Your task to perform on an android device: open app "Contacts" (install if not already installed) Image 0: 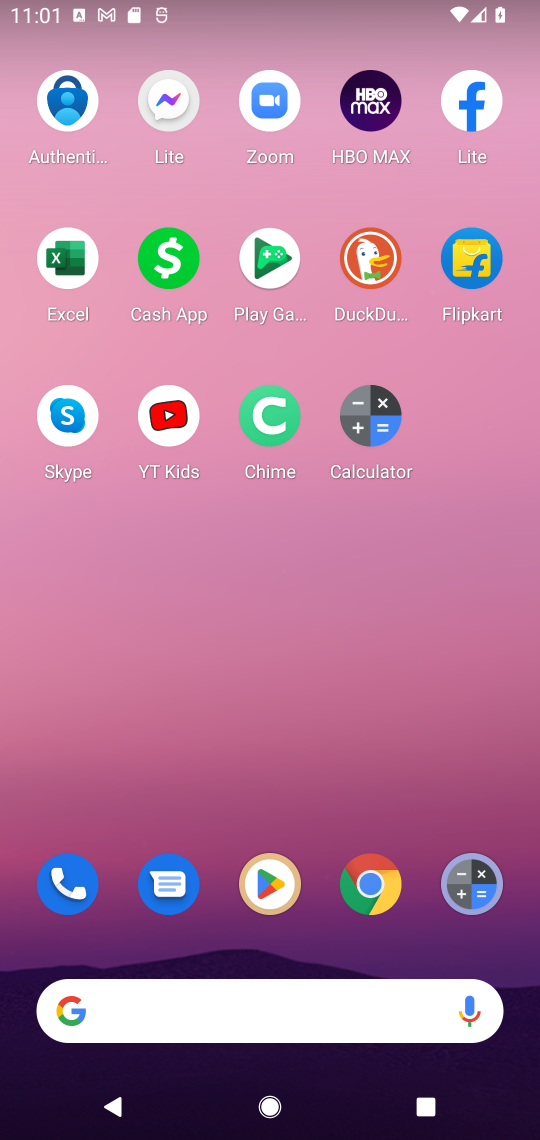
Step 0: drag from (270, 1017) to (244, 207)
Your task to perform on an android device: open app "Contacts" (install if not already installed) Image 1: 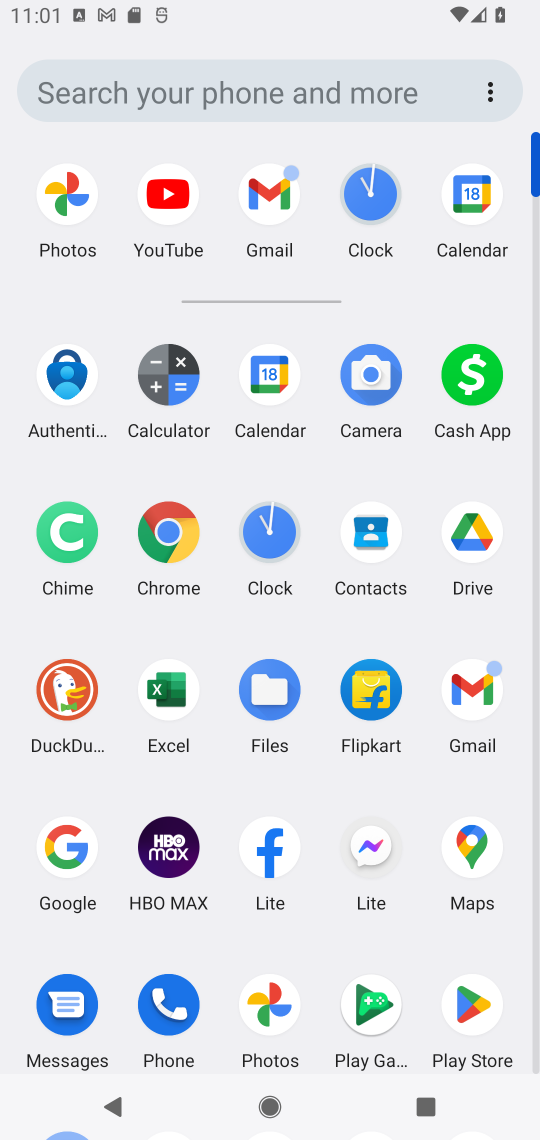
Step 1: click (477, 1008)
Your task to perform on an android device: open app "Contacts" (install if not already installed) Image 2: 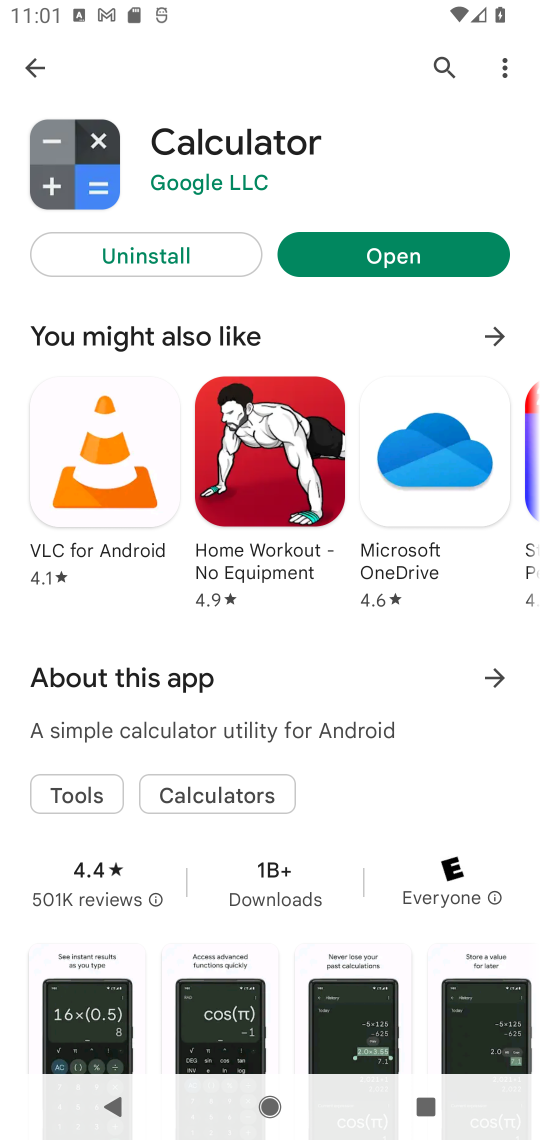
Step 2: press back button
Your task to perform on an android device: open app "Contacts" (install if not already installed) Image 3: 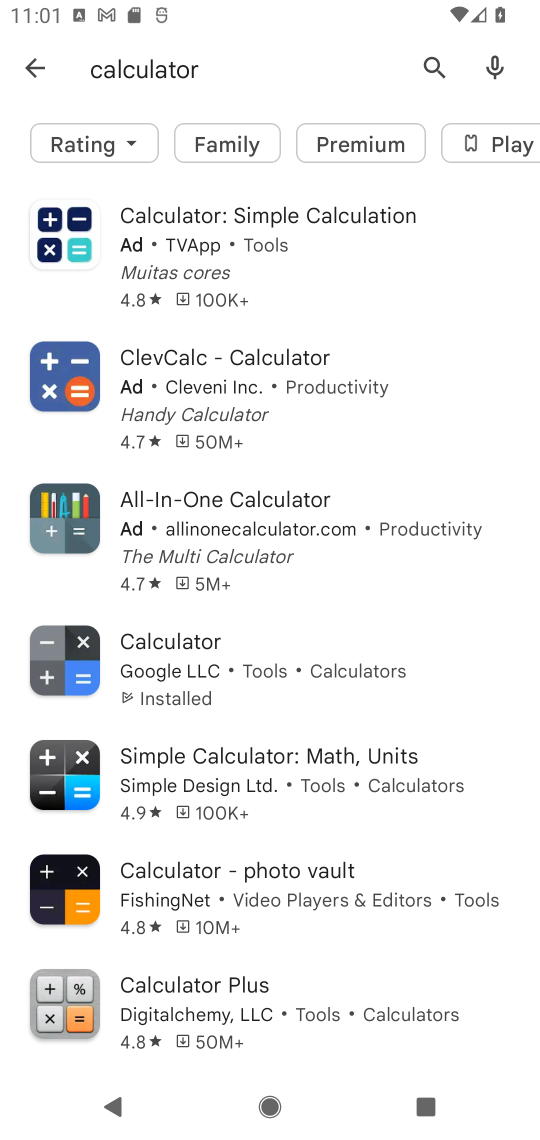
Step 3: press back button
Your task to perform on an android device: open app "Contacts" (install if not already installed) Image 4: 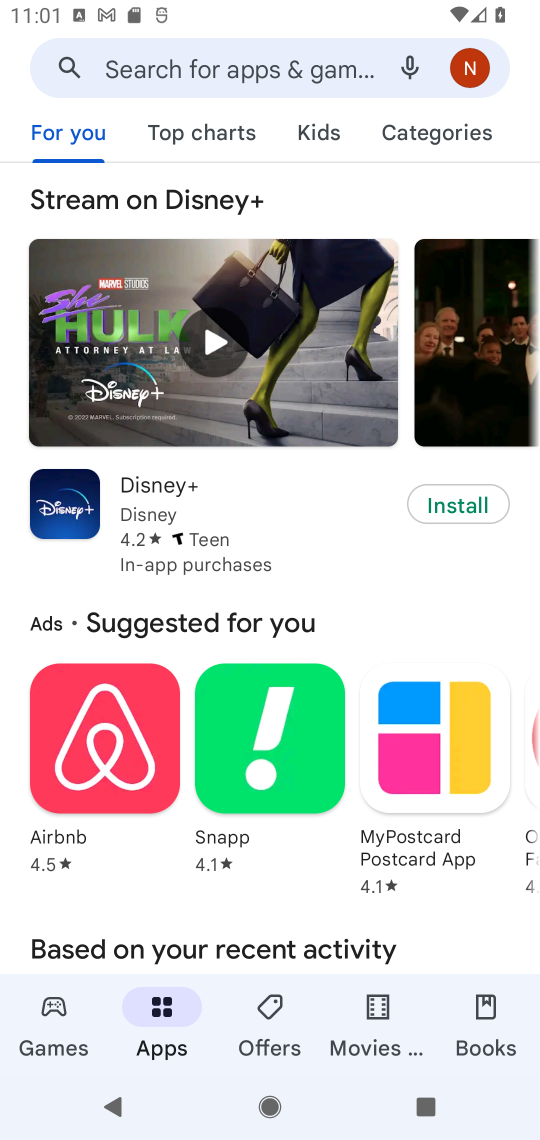
Step 4: click (299, 66)
Your task to perform on an android device: open app "Contacts" (install if not already installed) Image 5: 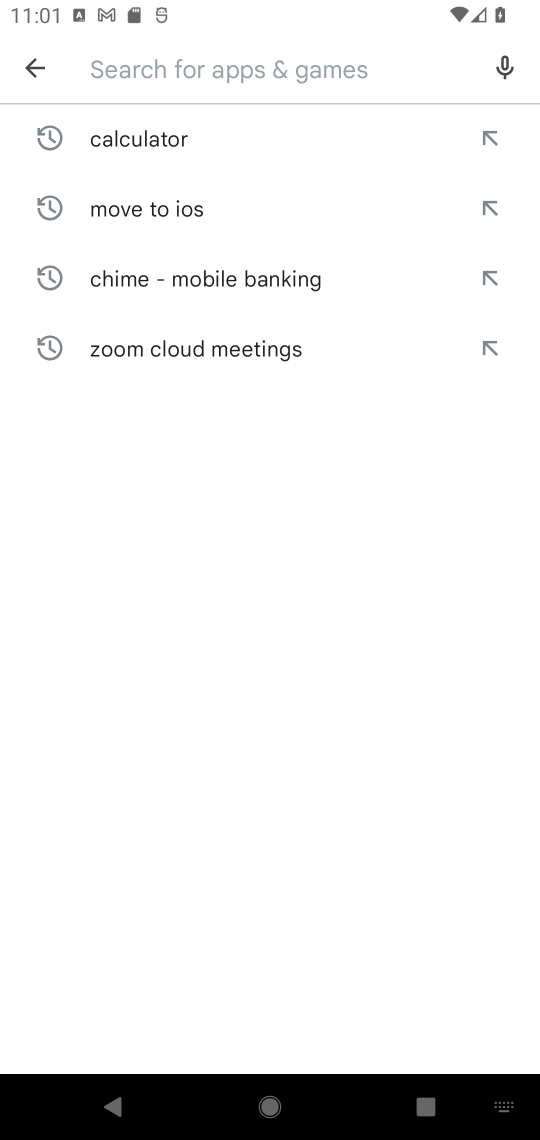
Step 5: type "Contacts"
Your task to perform on an android device: open app "Contacts" (install if not already installed) Image 6: 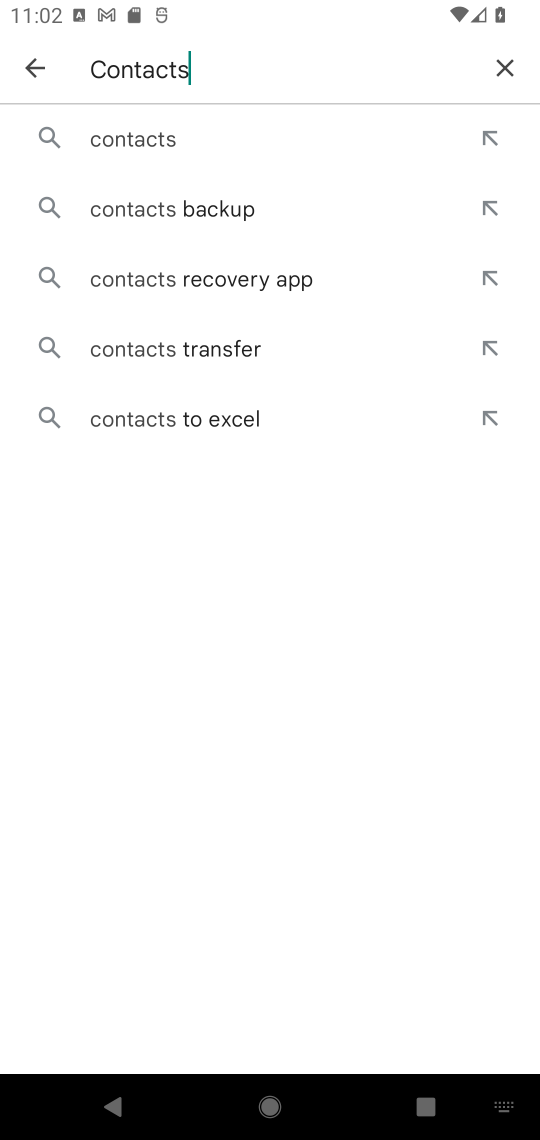
Step 6: click (127, 144)
Your task to perform on an android device: open app "Contacts" (install if not already installed) Image 7: 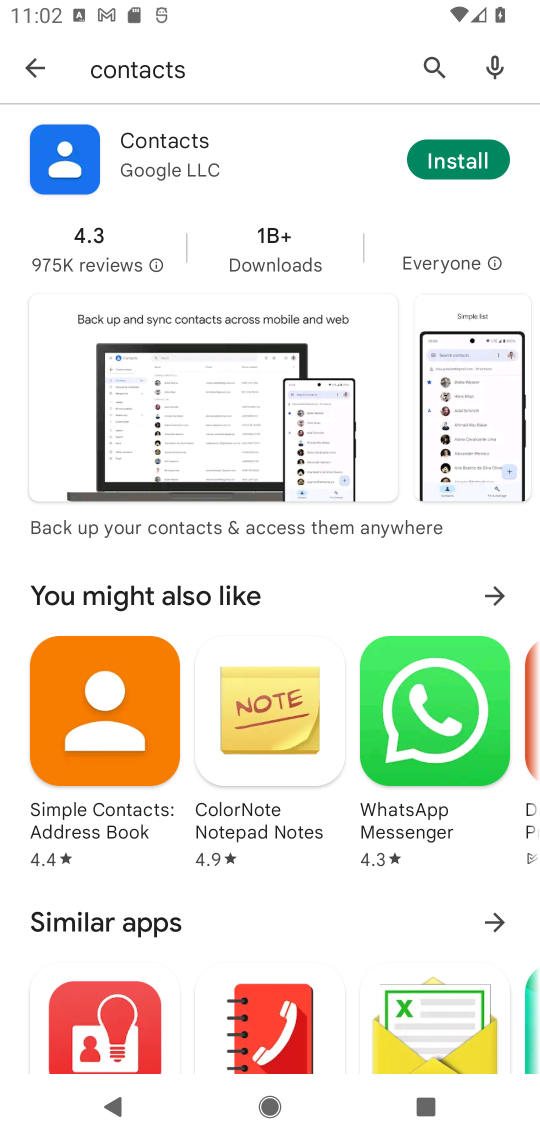
Step 7: click (466, 167)
Your task to perform on an android device: open app "Contacts" (install if not already installed) Image 8: 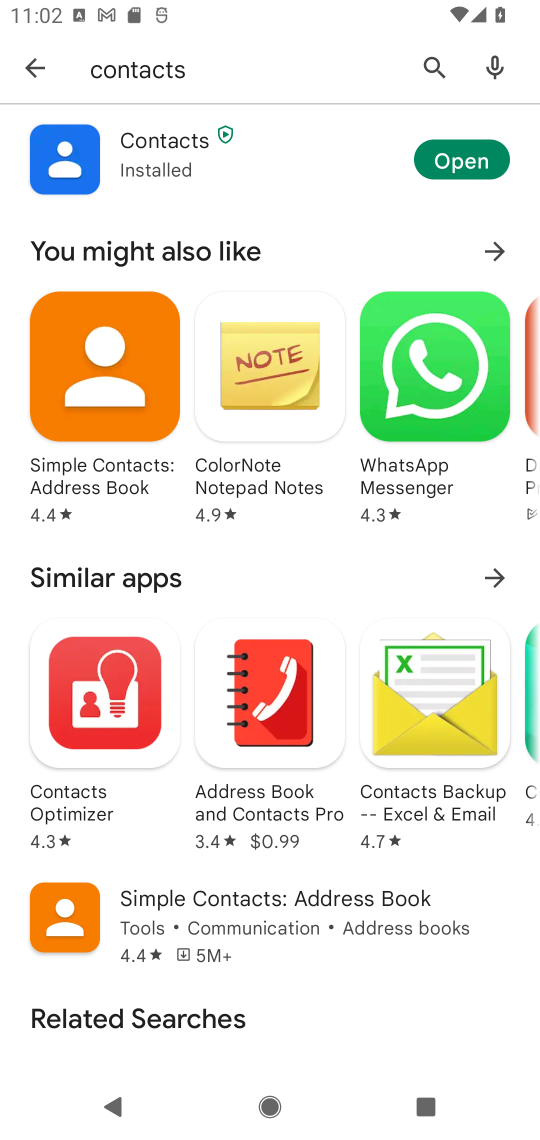
Step 8: click (467, 168)
Your task to perform on an android device: open app "Contacts" (install if not already installed) Image 9: 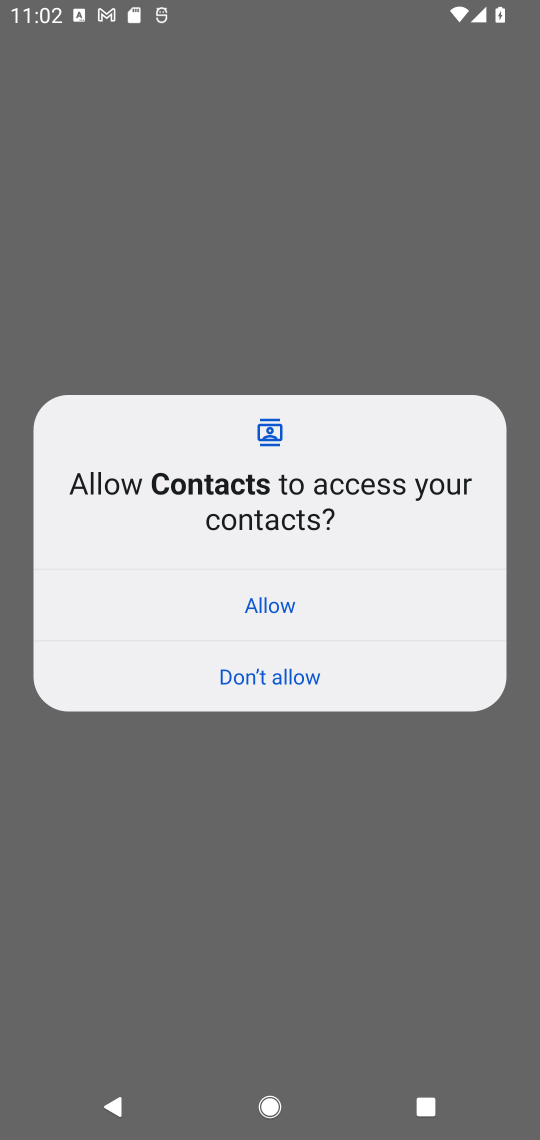
Step 9: click (278, 600)
Your task to perform on an android device: open app "Contacts" (install if not already installed) Image 10: 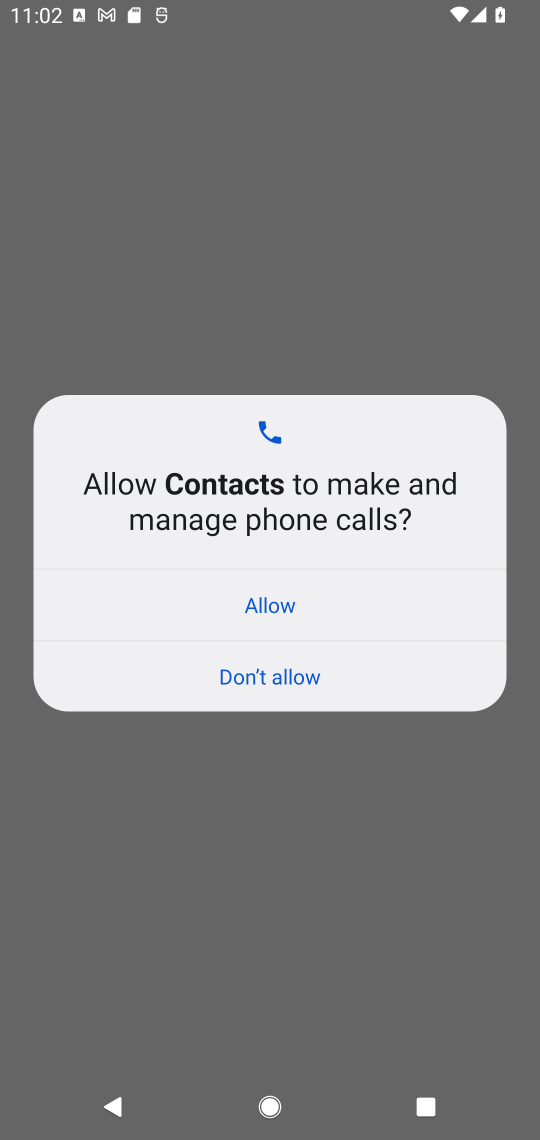
Step 10: click (278, 600)
Your task to perform on an android device: open app "Contacts" (install if not already installed) Image 11: 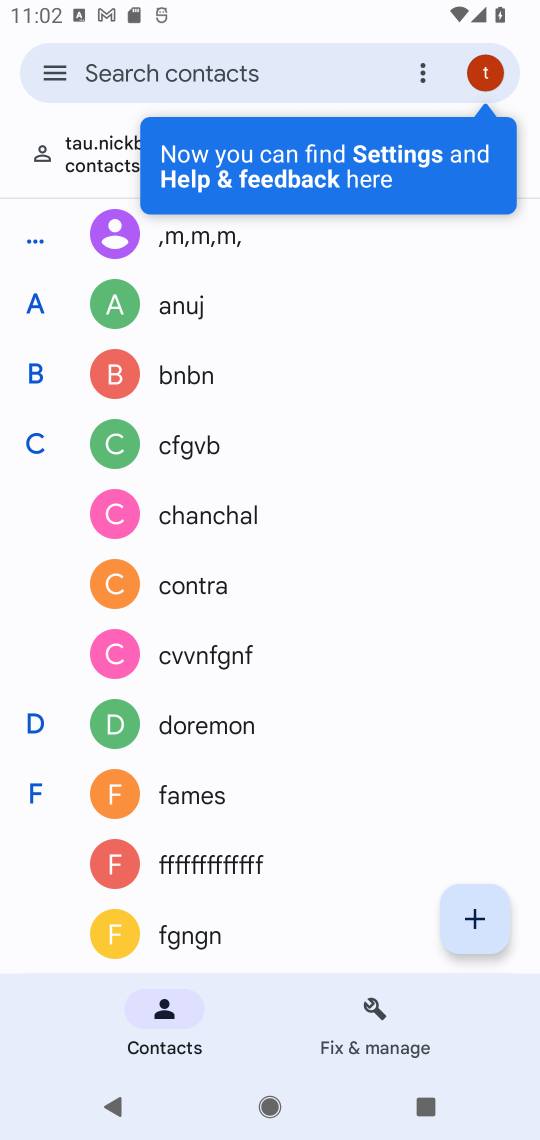
Step 11: task complete